Your task to perform on an android device: toggle pop-ups in chrome Image 0: 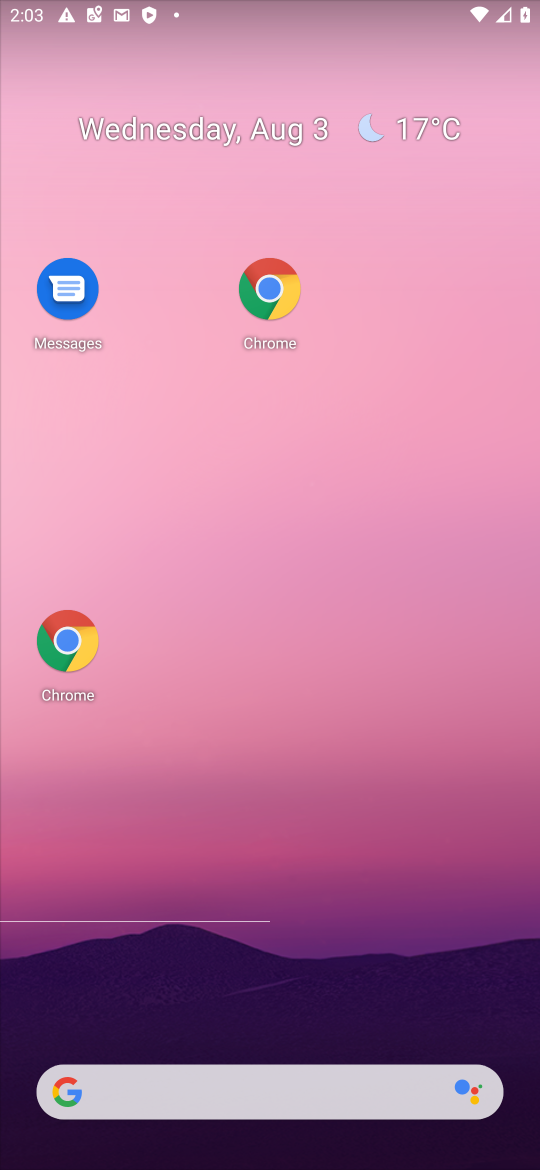
Step 0: drag from (359, 1012) to (337, 603)
Your task to perform on an android device: toggle pop-ups in chrome Image 1: 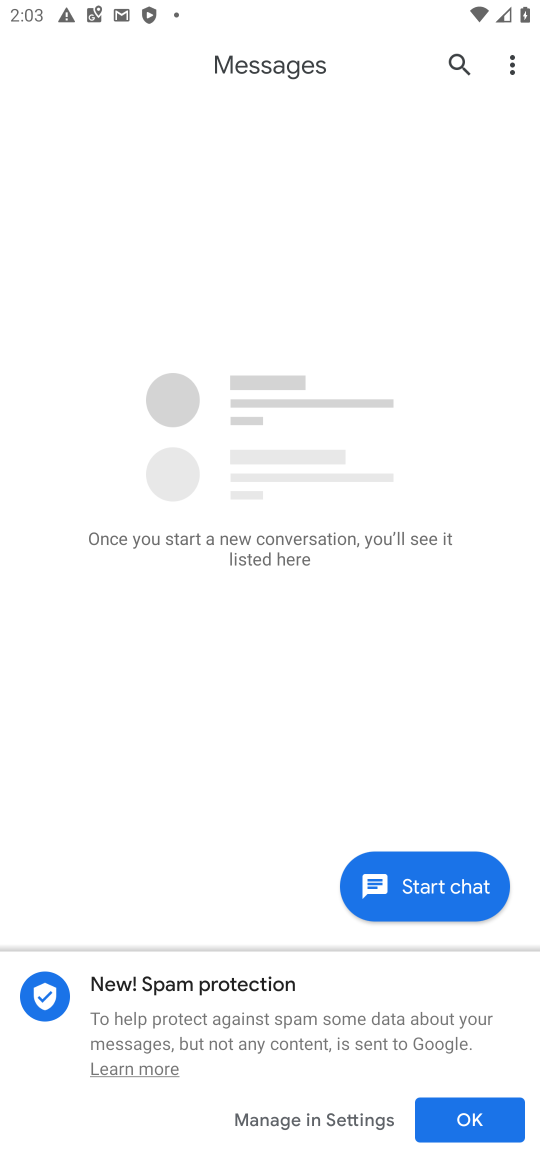
Step 1: press home button
Your task to perform on an android device: toggle pop-ups in chrome Image 2: 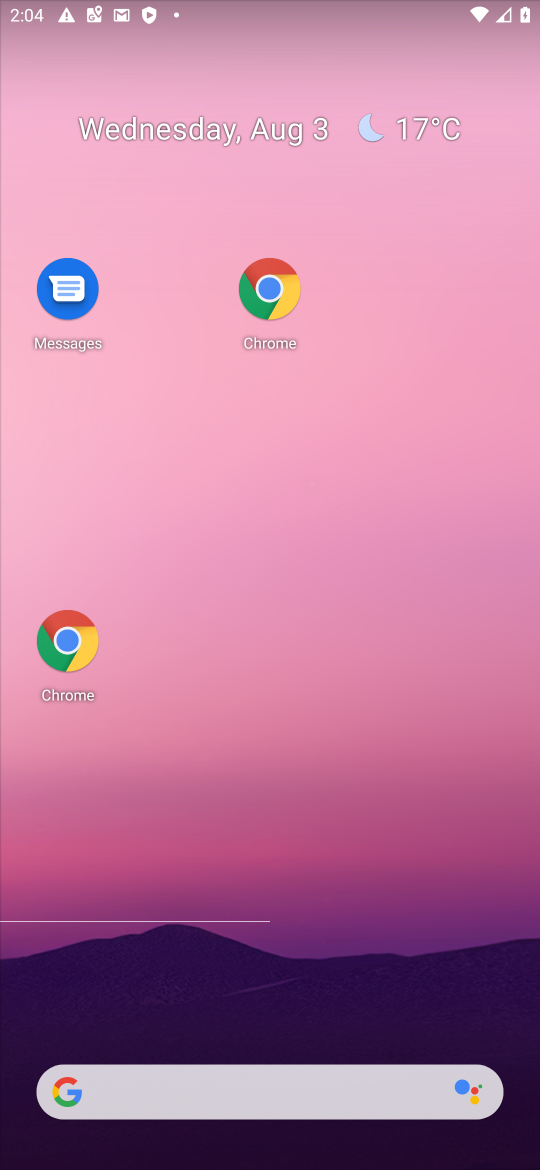
Step 2: click (273, 311)
Your task to perform on an android device: toggle pop-ups in chrome Image 3: 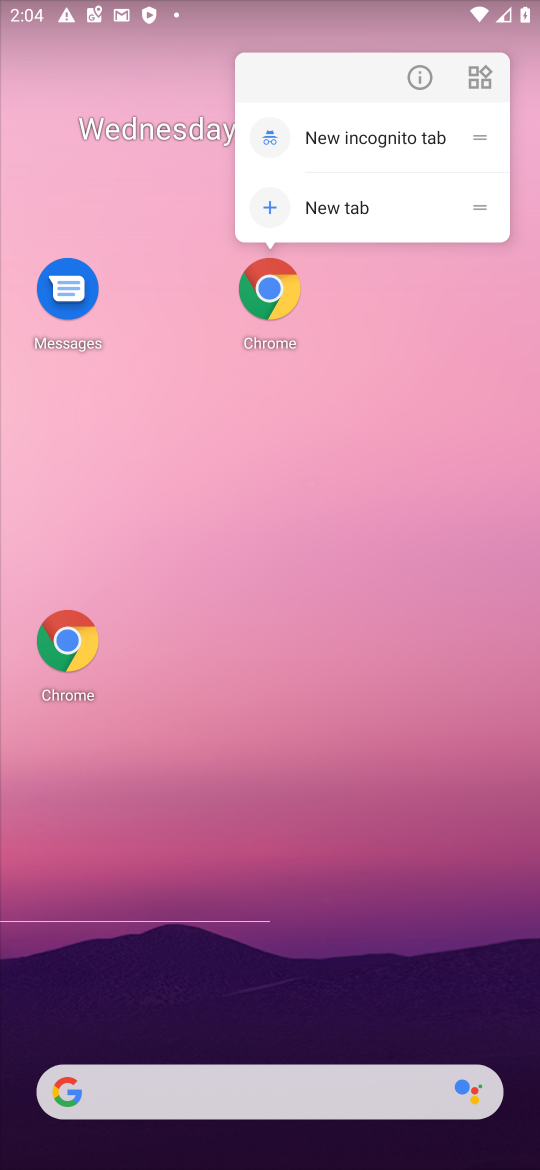
Step 3: click (273, 311)
Your task to perform on an android device: toggle pop-ups in chrome Image 4: 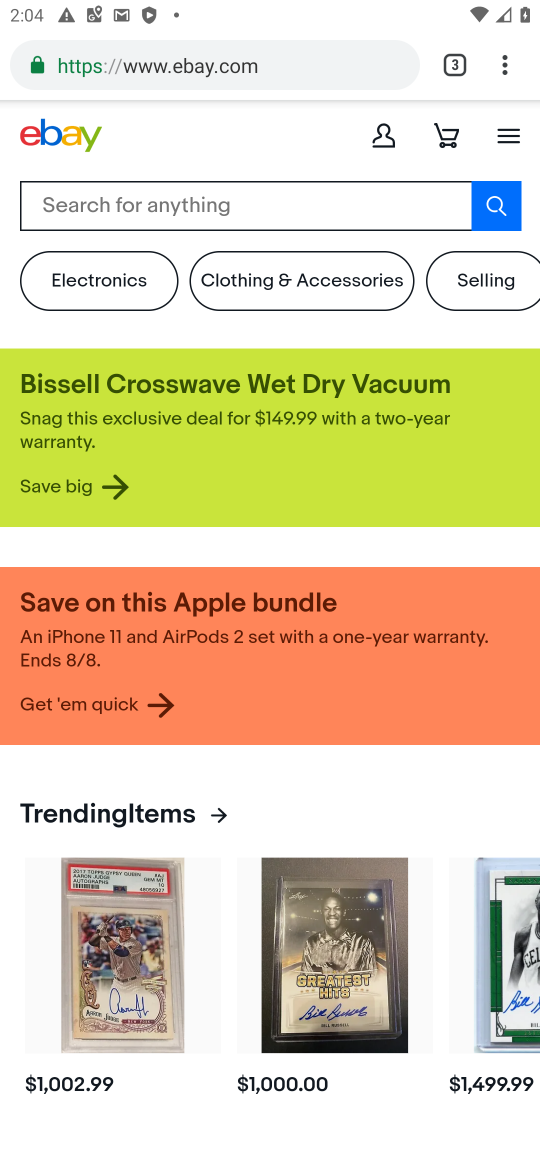
Step 4: click (501, 70)
Your task to perform on an android device: toggle pop-ups in chrome Image 5: 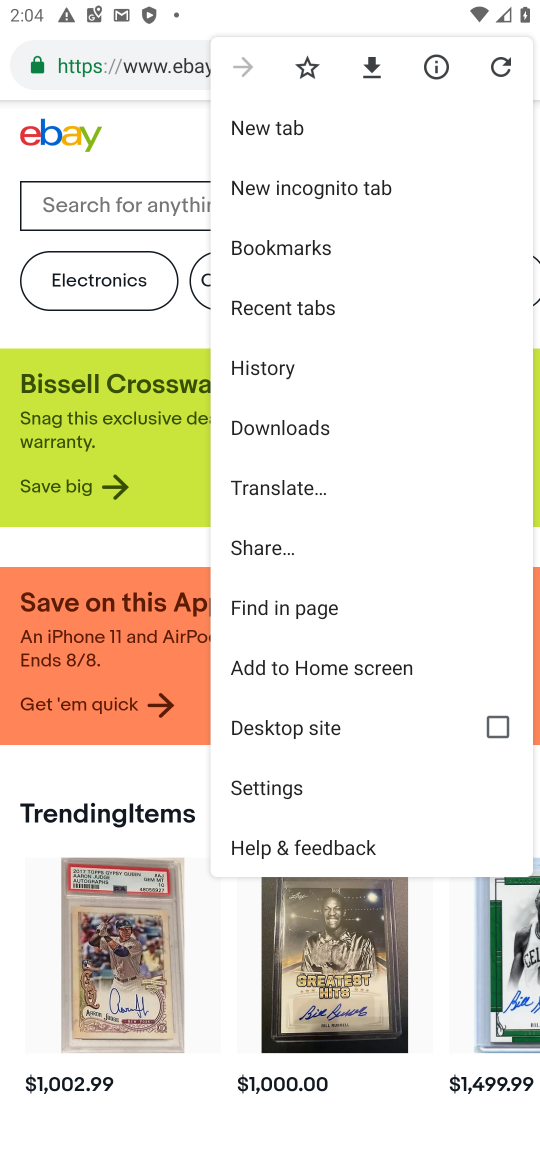
Step 5: click (340, 790)
Your task to perform on an android device: toggle pop-ups in chrome Image 6: 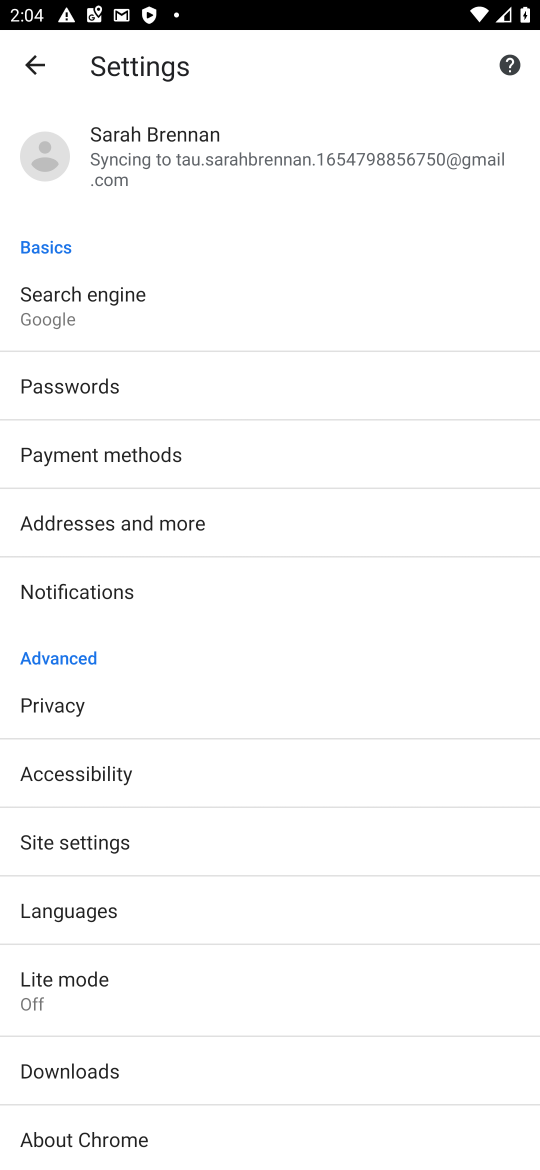
Step 6: click (201, 848)
Your task to perform on an android device: toggle pop-ups in chrome Image 7: 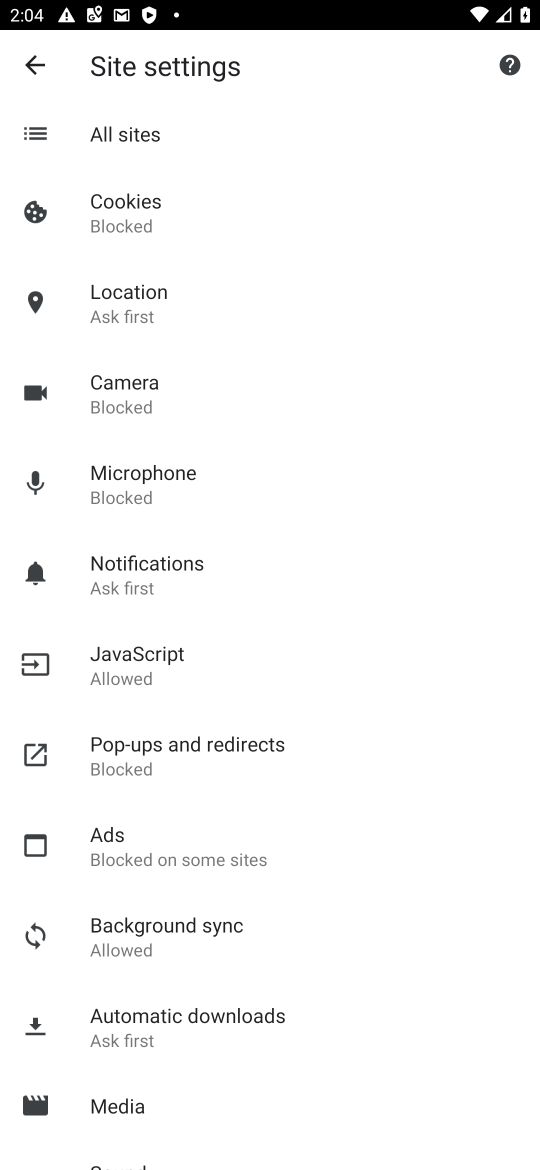
Step 7: click (193, 727)
Your task to perform on an android device: toggle pop-ups in chrome Image 8: 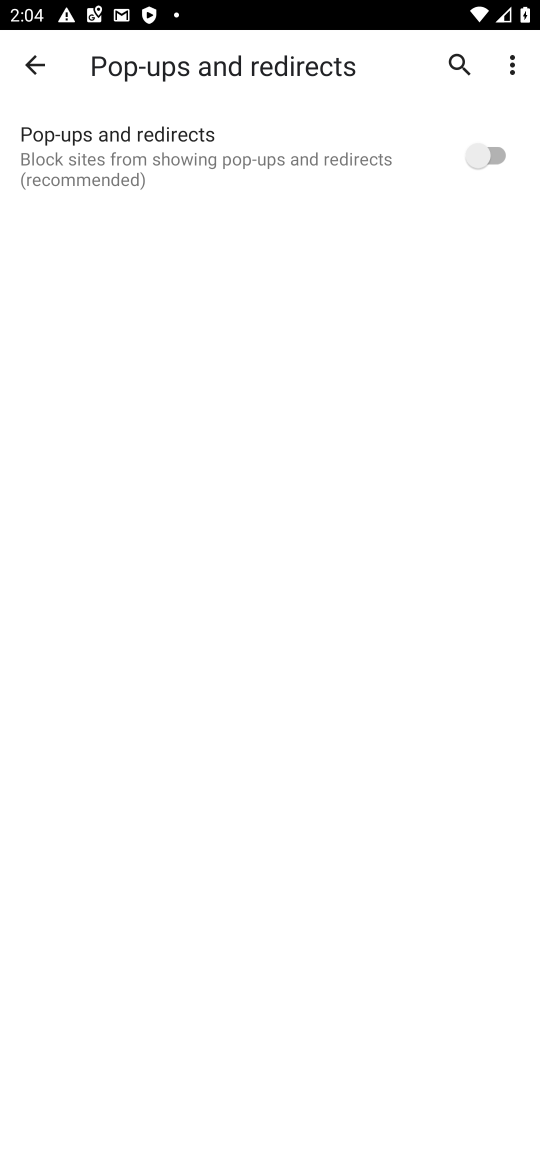
Step 8: click (454, 161)
Your task to perform on an android device: toggle pop-ups in chrome Image 9: 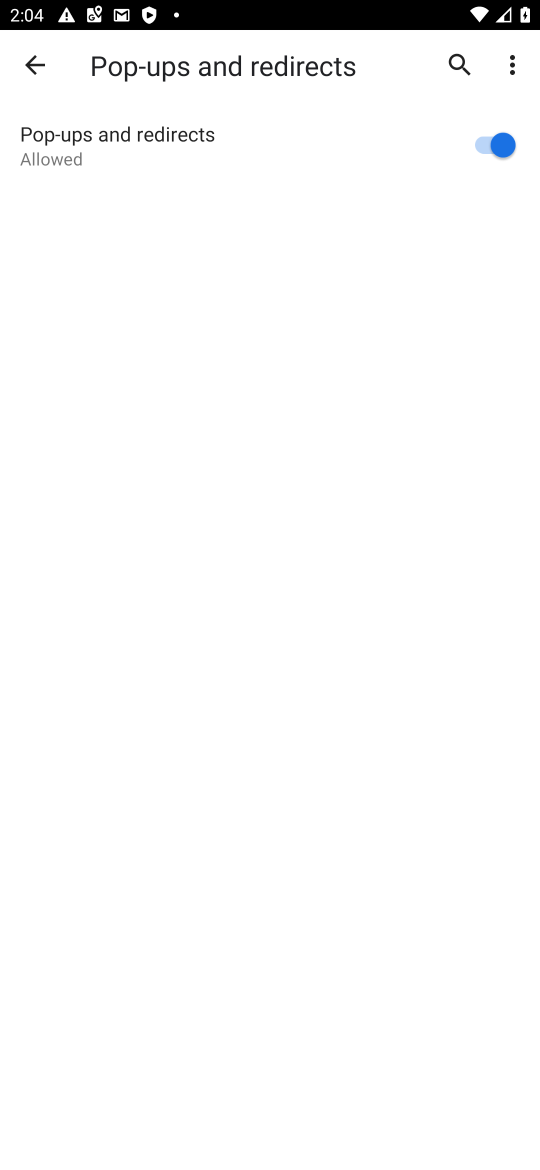
Step 9: task complete